Your task to perform on an android device: turn off notifications settings in the gmail app Image 0: 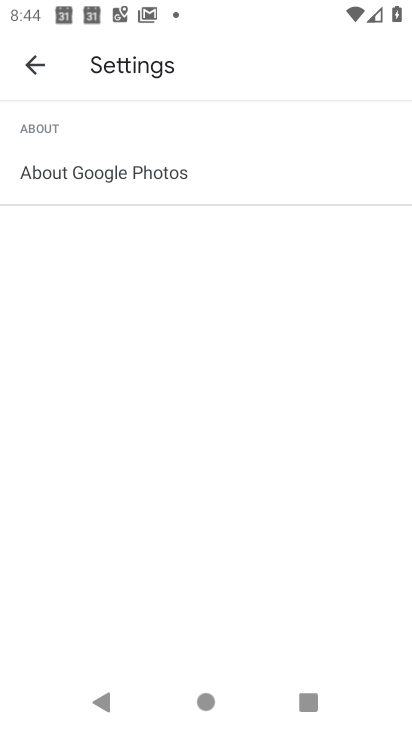
Step 0: press home button
Your task to perform on an android device: turn off notifications settings in the gmail app Image 1: 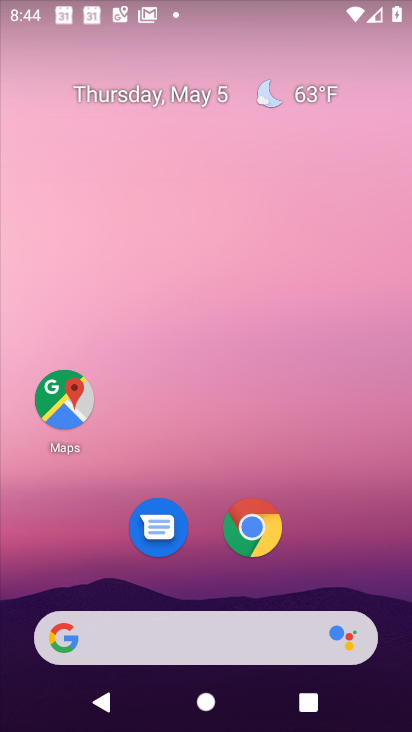
Step 1: drag from (251, 713) to (200, 24)
Your task to perform on an android device: turn off notifications settings in the gmail app Image 2: 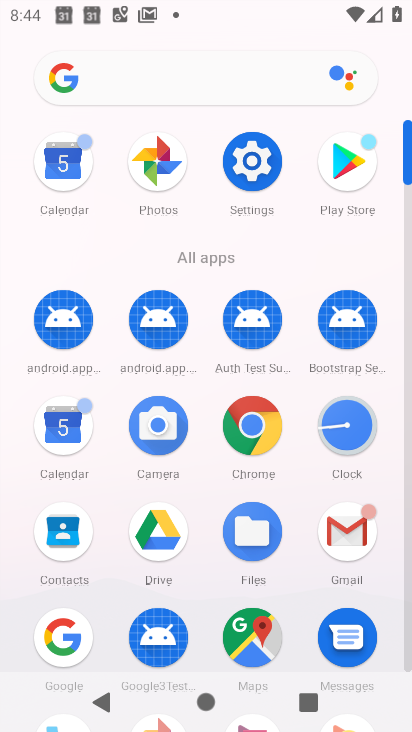
Step 2: click (336, 540)
Your task to perform on an android device: turn off notifications settings in the gmail app Image 3: 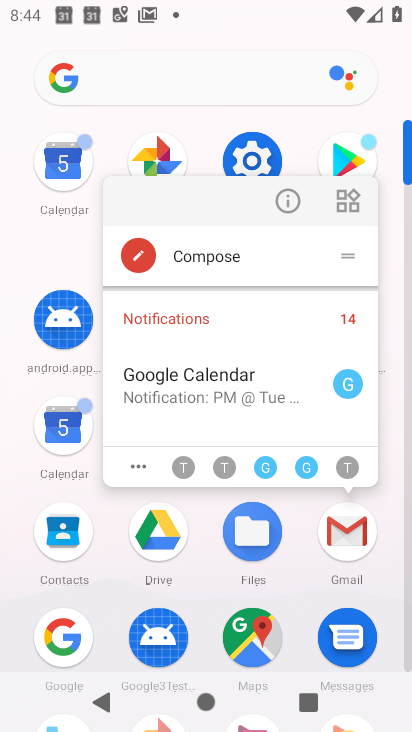
Step 3: click (297, 196)
Your task to perform on an android device: turn off notifications settings in the gmail app Image 4: 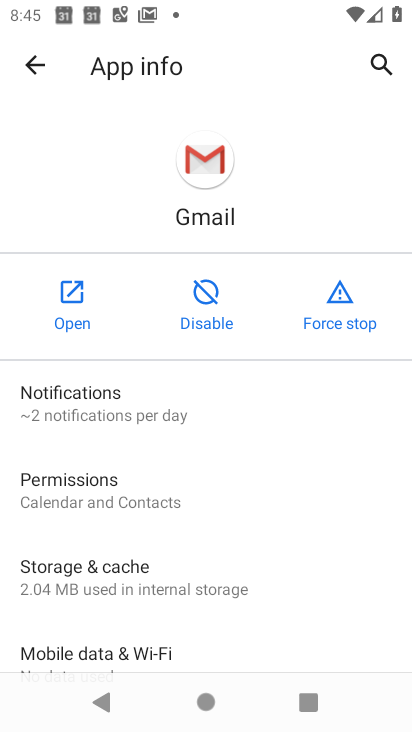
Step 4: click (175, 396)
Your task to perform on an android device: turn off notifications settings in the gmail app Image 5: 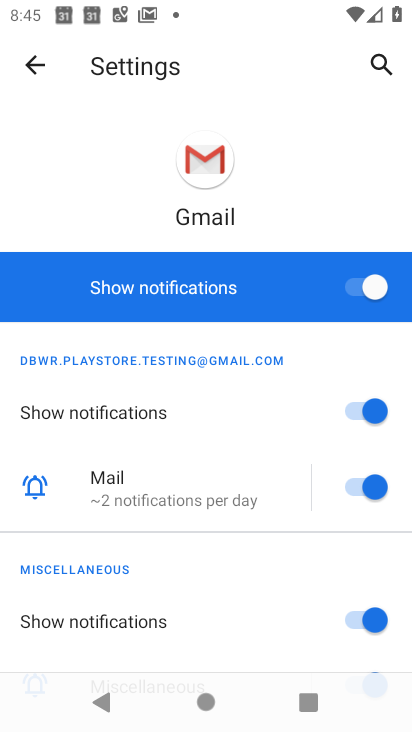
Step 5: click (377, 282)
Your task to perform on an android device: turn off notifications settings in the gmail app Image 6: 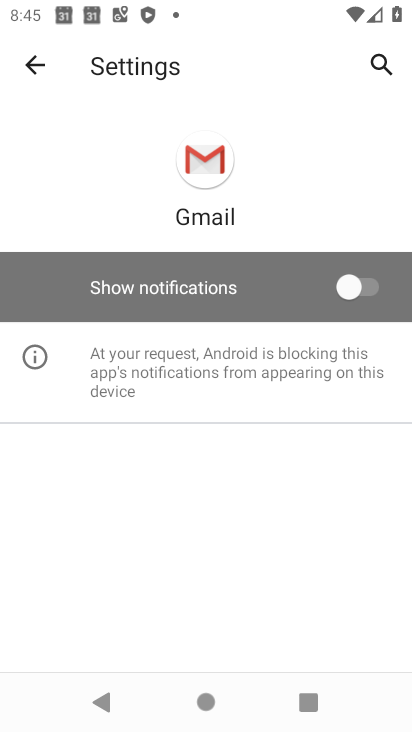
Step 6: task complete